Your task to perform on an android device: turn off wifi Image 0: 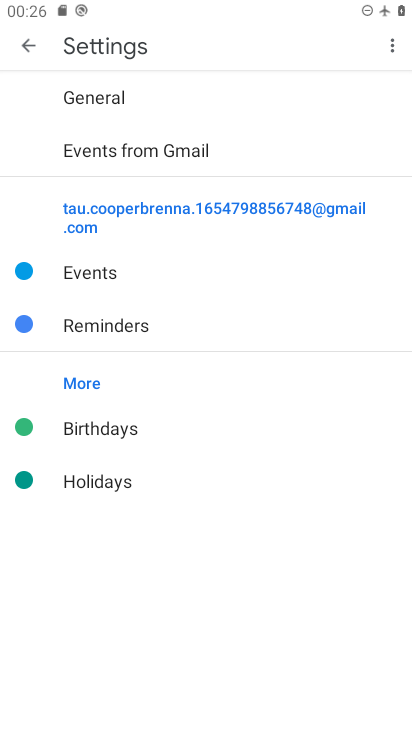
Step 0: press home button
Your task to perform on an android device: turn off wifi Image 1: 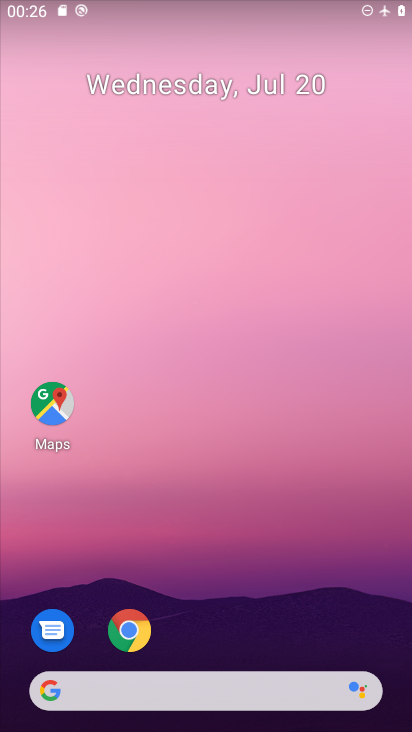
Step 1: drag from (201, 617) to (194, 243)
Your task to perform on an android device: turn off wifi Image 2: 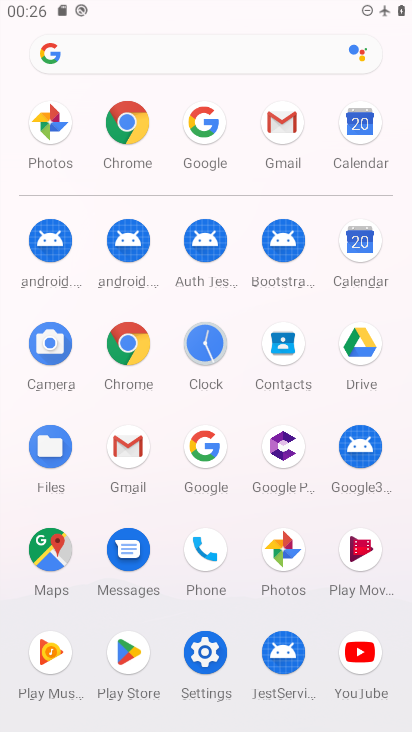
Step 2: click (208, 654)
Your task to perform on an android device: turn off wifi Image 3: 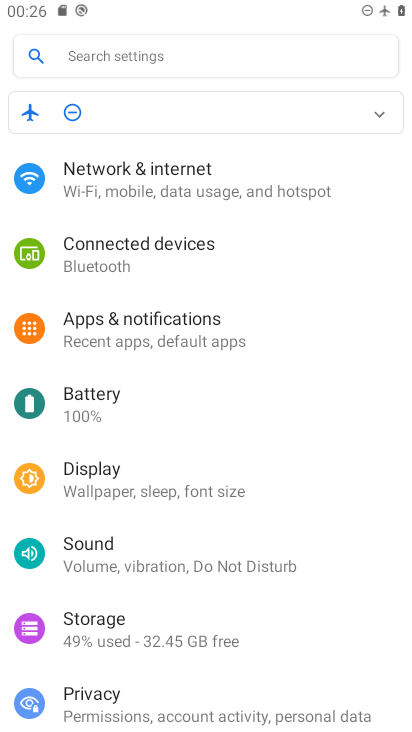
Step 3: click (164, 207)
Your task to perform on an android device: turn off wifi Image 4: 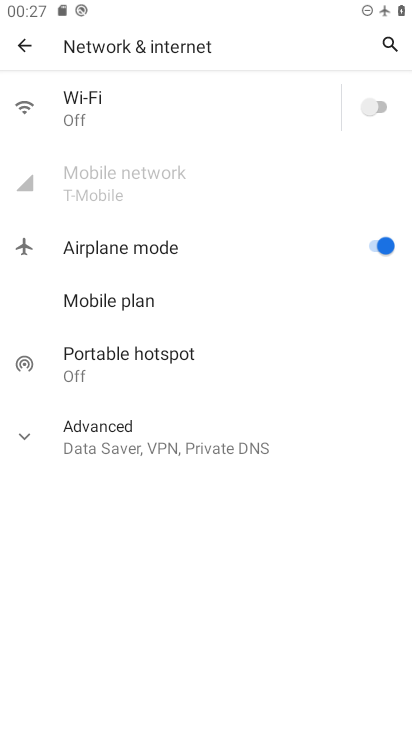
Step 4: task complete